Your task to perform on an android device: empty trash in google photos Image 0: 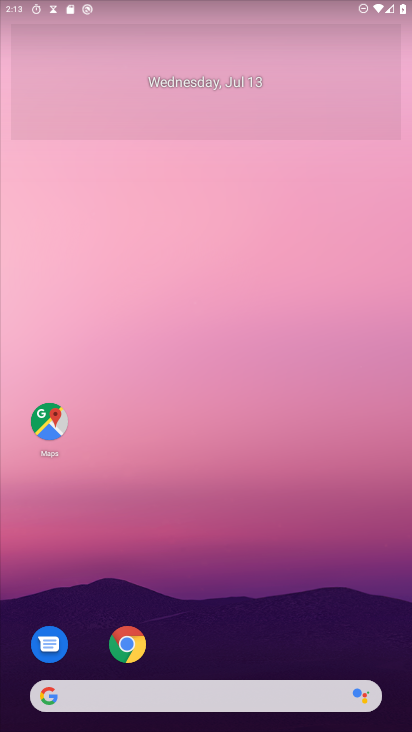
Step 0: press home button
Your task to perform on an android device: empty trash in google photos Image 1: 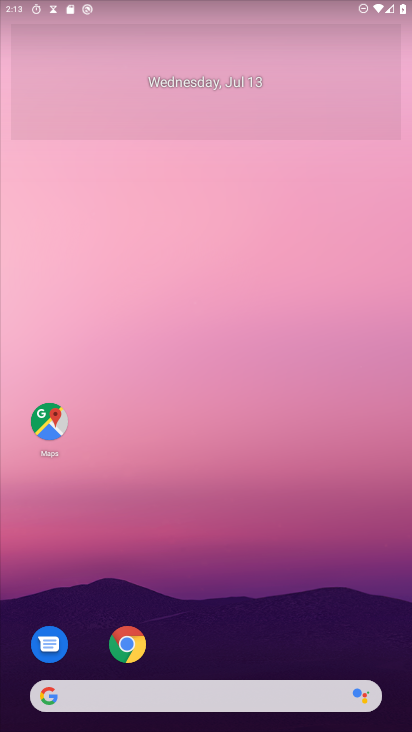
Step 1: drag from (195, 625) to (209, 16)
Your task to perform on an android device: empty trash in google photos Image 2: 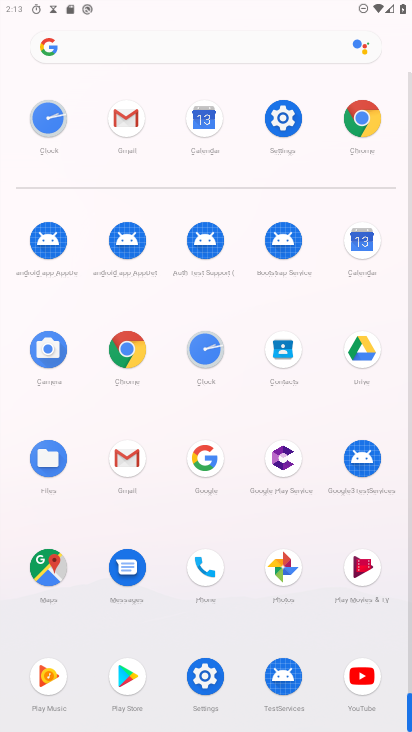
Step 2: click (287, 570)
Your task to perform on an android device: empty trash in google photos Image 3: 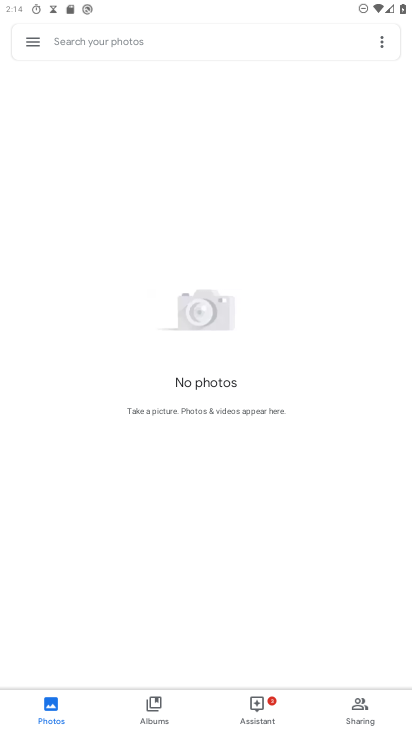
Step 3: click (23, 37)
Your task to perform on an android device: empty trash in google photos Image 4: 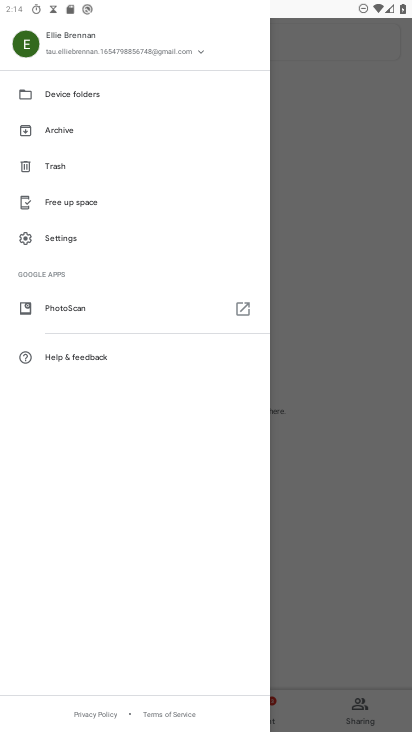
Step 4: click (57, 166)
Your task to perform on an android device: empty trash in google photos Image 5: 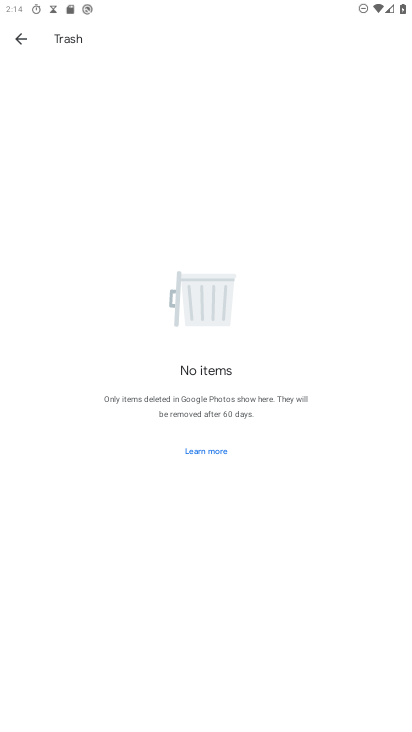
Step 5: task complete